Your task to perform on an android device: change the clock style Image 0: 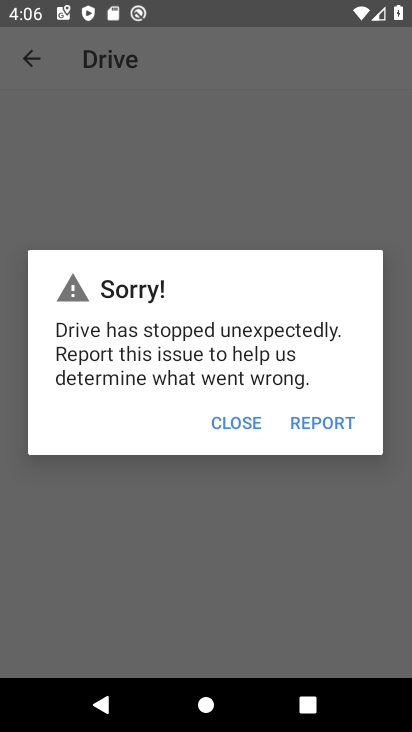
Step 0: press home button
Your task to perform on an android device: change the clock style Image 1: 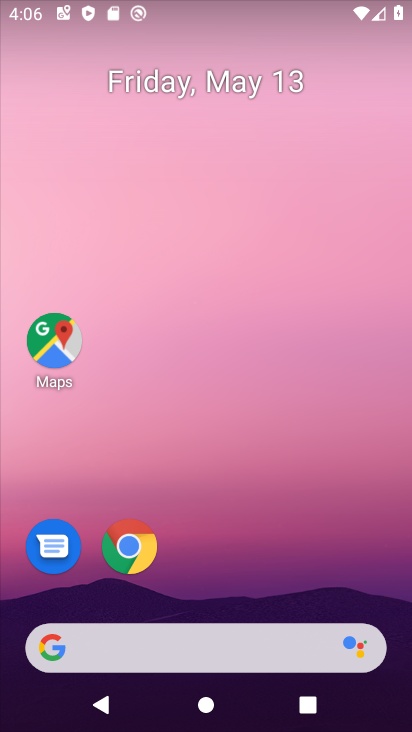
Step 1: drag from (192, 573) to (220, 8)
Your task to perform on an android device: change the clock style Image 2: 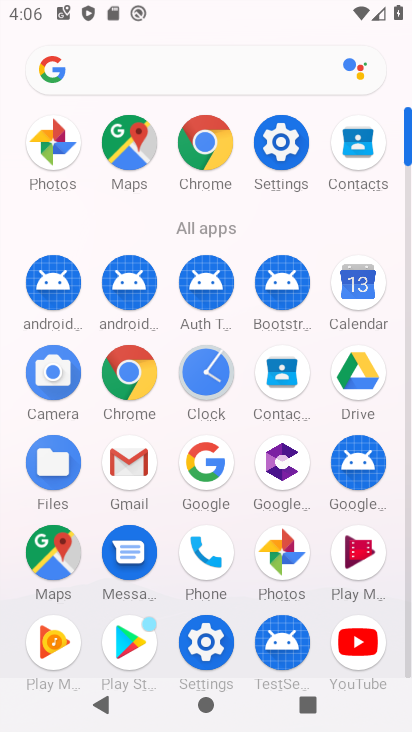
Step 2: click (217, 385)
Your task to perform on an android device: change the clock style Image 3: 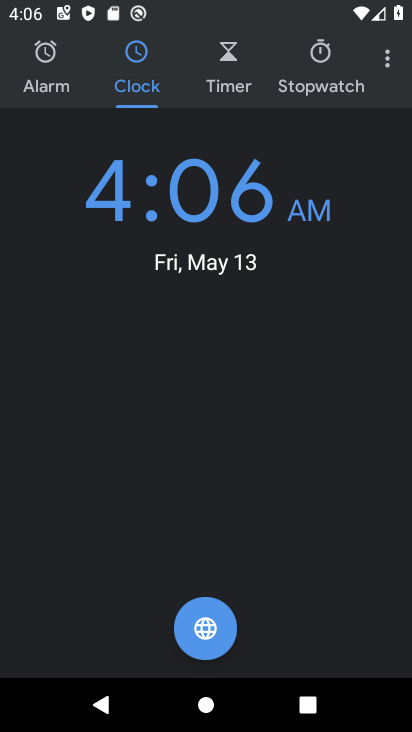
Step 3: click (383, 63)
Your task to perform on an android device: change the clock style Image 4: 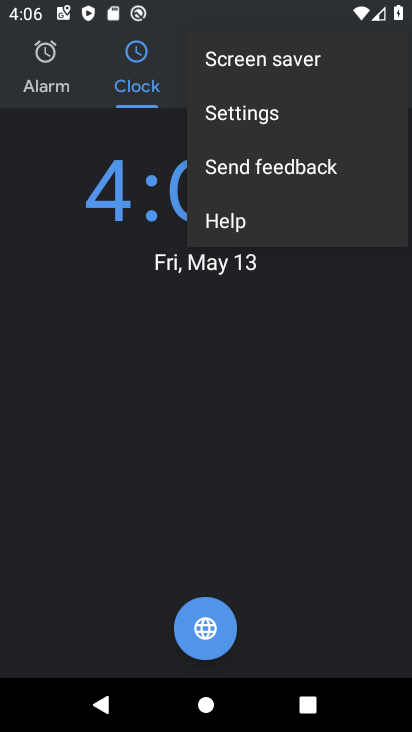
Step 4: click (388, 60)
Your task to perform on an android device: change the clock style Image 5: 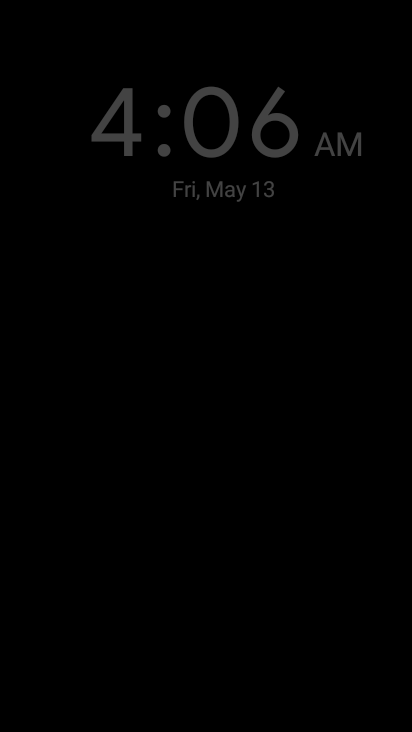
Step 5: click (258, 114)
Your task to perform on an android device: change the clock style Image 6: 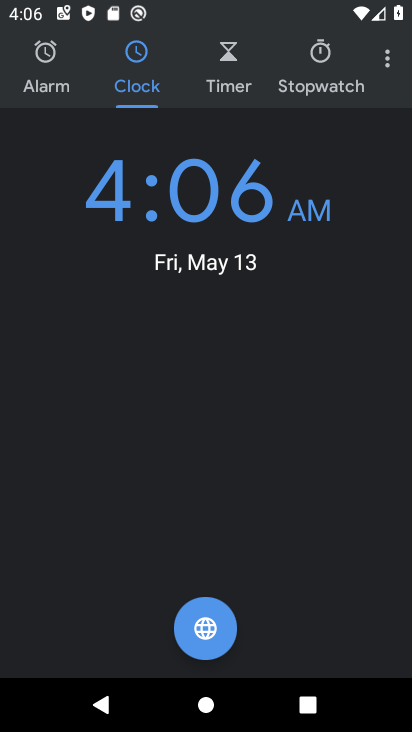
Step 6: click (387, 62)
Your task to perform on an android device: change the clock style Image 7: 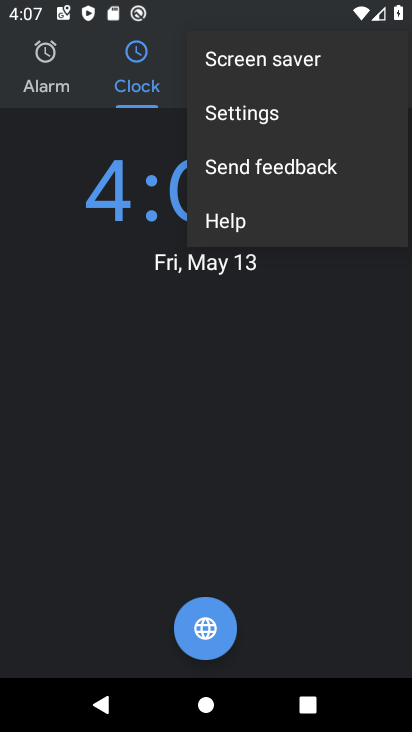
Step 7: click (297, 112)
Your task to perform on an android device: change the clock style Image 8: 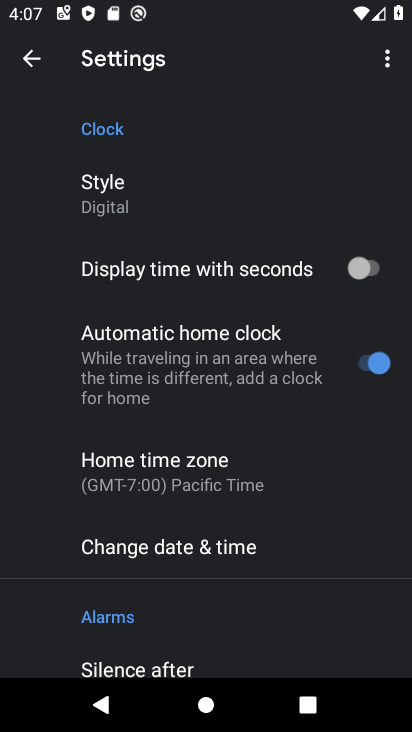
Step 8: click (138, 219)
Your task to perform on an android device: change the clock style Image 9: 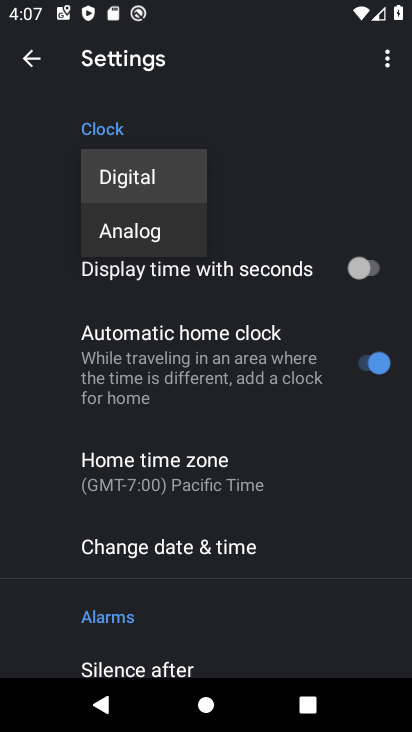
Step 9: click (145, 235)
Your task to perform on an android device: change the clock style Image 10: 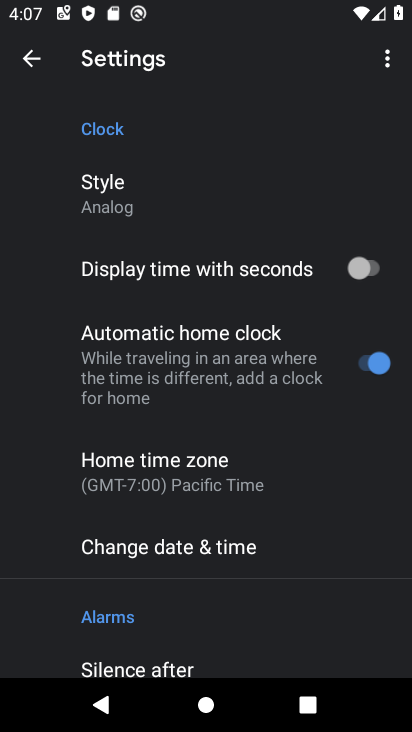
Step 10: task complete